Your task to perform on an android device: Open Google Chrome Image 0: 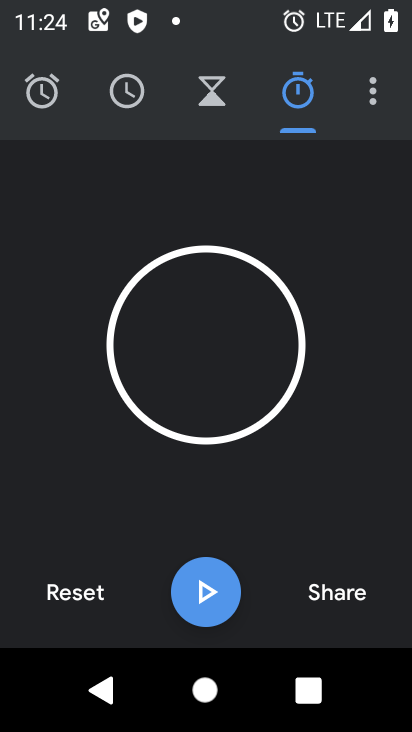
Step 0: press home button
Your task to perform on an android device: Open Google Chrome Image 1: 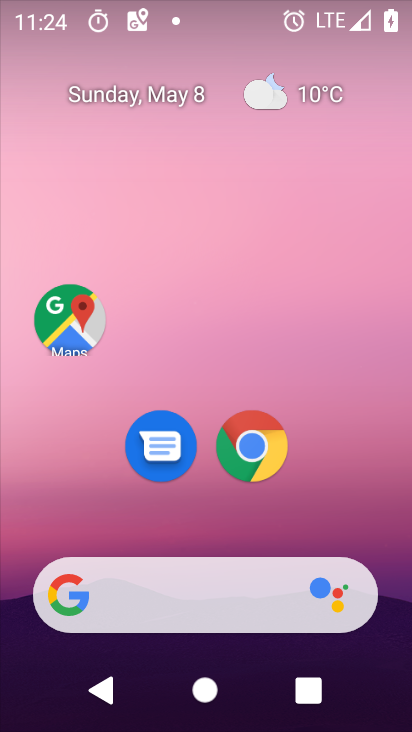
Step 1: click (252, 449)
Your task to perform on an android device: Open Google Chrome Image 2: 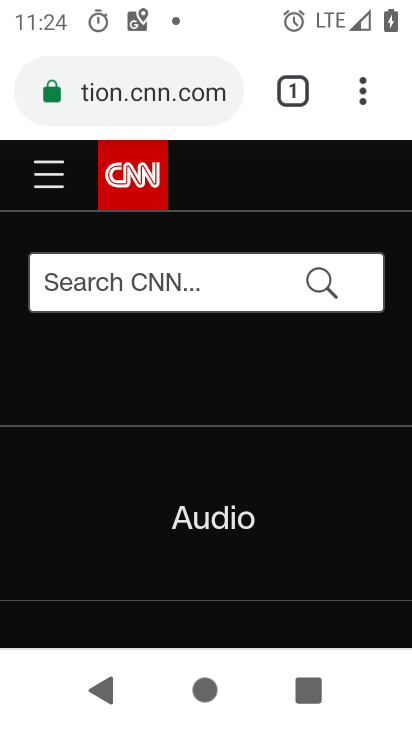
Step 2: task complete